Your task to perform on an android device: add a label to a message in the gmail app Image 0: 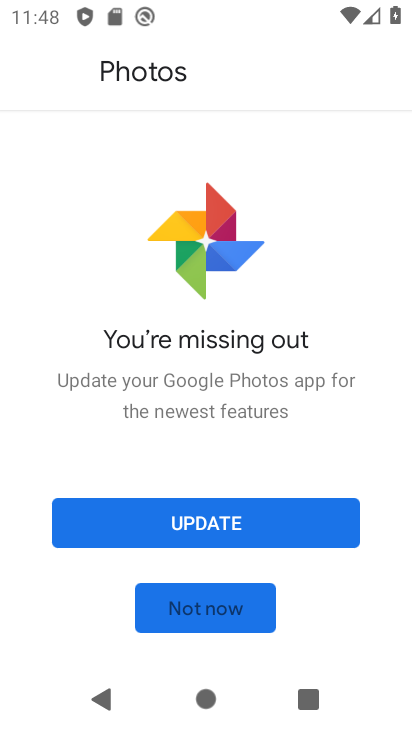
Step 0: press home button
Your task to perform on an android device: add a label to a message in the gmail app Image 1: 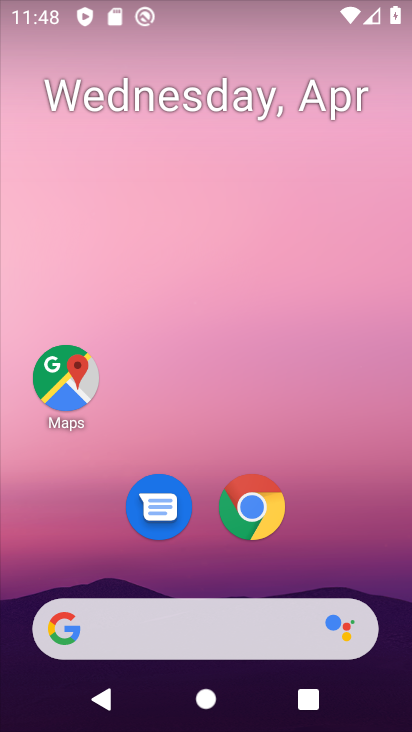
Step 1: drag from (358, 559) to (258, 27)
Your task to perform on an android device: add a label to a message in the gmail app Image 2: 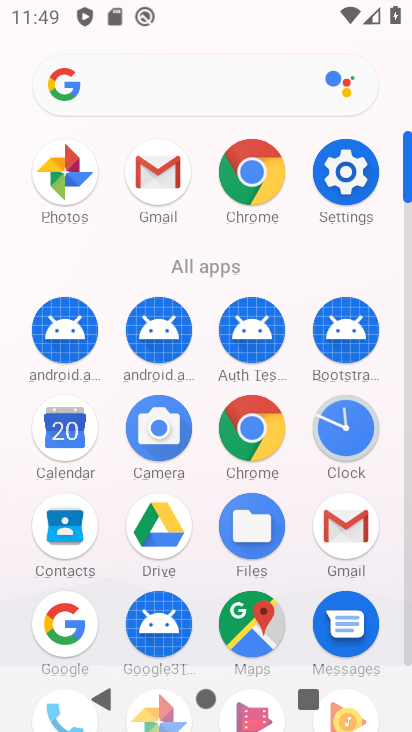
Step 2: click (329, 549)
Your task to perform on an android device: add a label to a message in the gmail app Image 3: 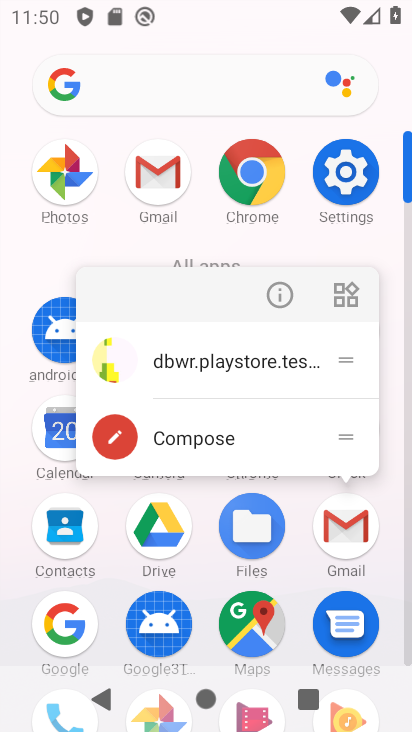
Step 3: click (344, 534)
Your task to perform on an android device: add a label to a message in the gmail app Image 4: 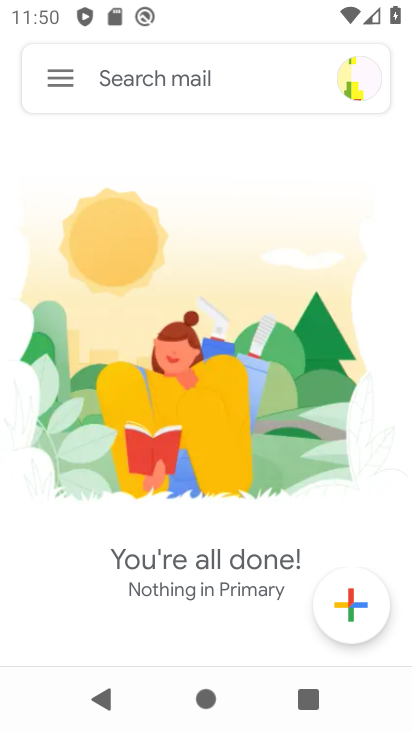
Step 4: task complete